Your task to perform on an android device: open app "Adobe Acrobat Reader" Image 0: 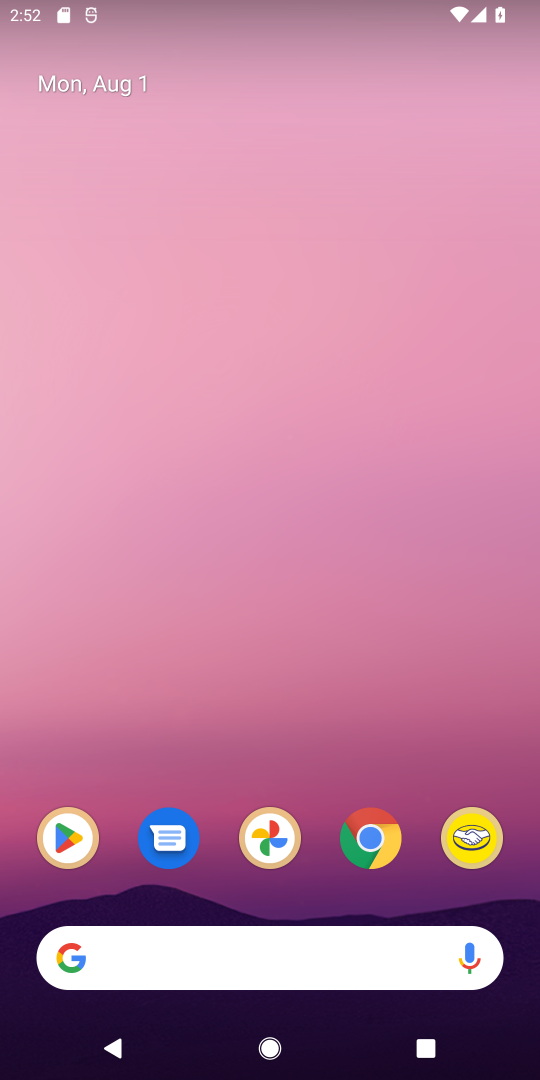
Step 0: click (70, 829)
Your task to perform on an android device: open app "Adobe Acrobat Reader" Image 1: 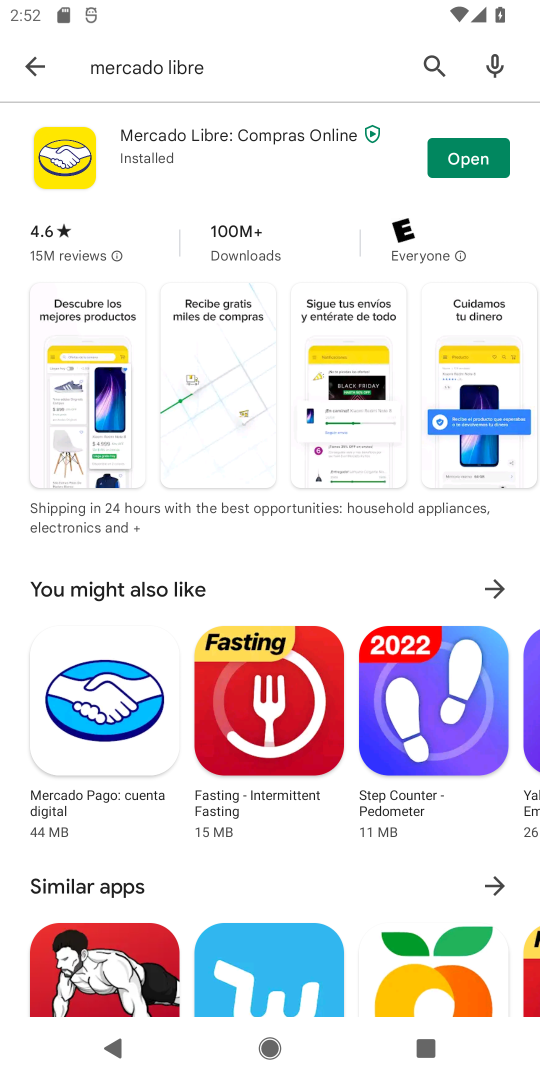
Step 1: click (437, 84)
Your task to perform on an android device: open app "Adobe Acrobat Reader" Image 2: 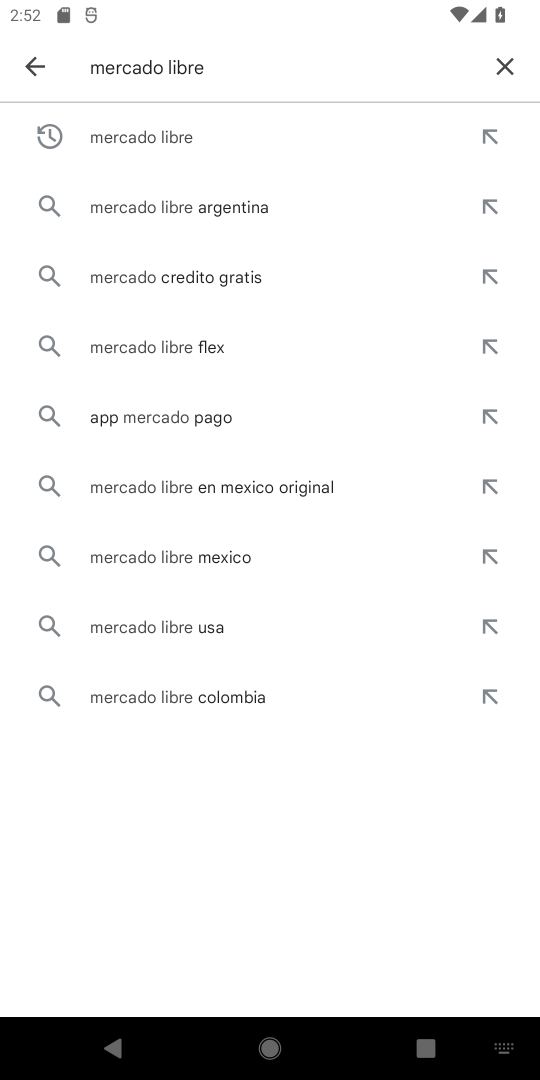
Step 2: click (509, 58)
Your task to perform on an android device: open app "Adobe Acrobat Reader" Image 3: 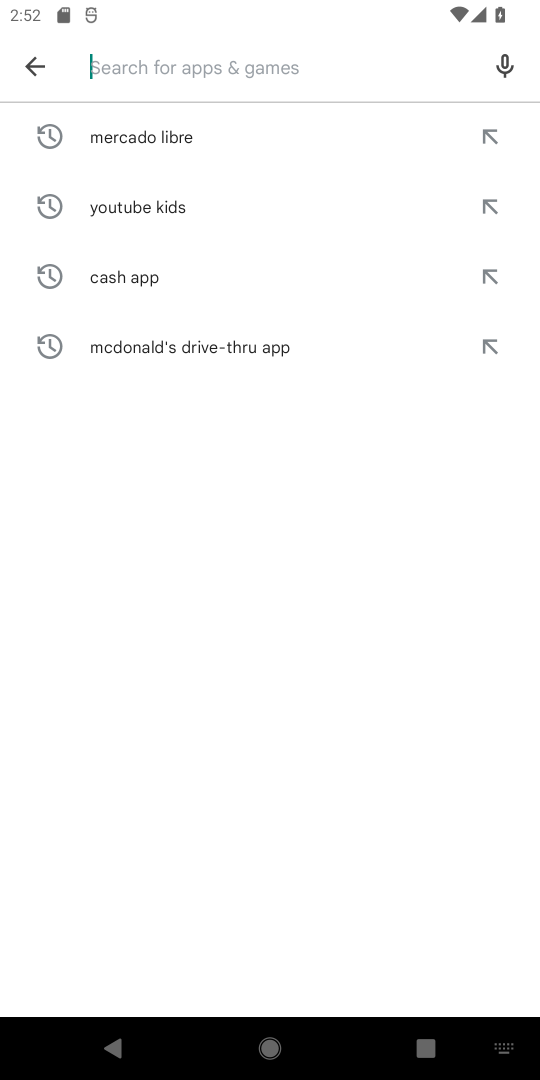
Step 3: type "Adobe Acrobat Reader"
Your task to perform on an android device: open app "Adobe Acrobat Reader" Image 4: 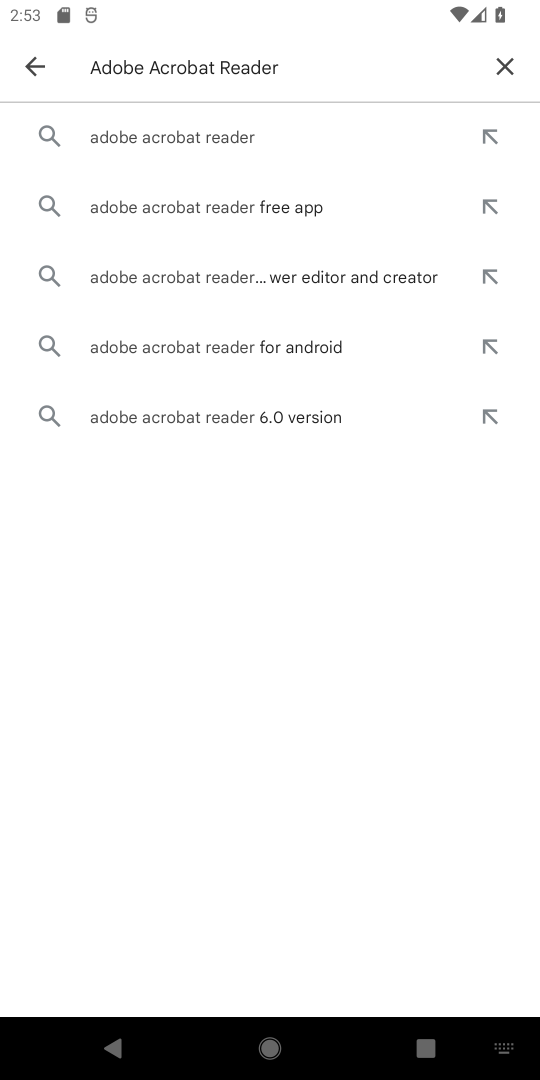
Step 4: click (271, 134)
Your task to perform on an android device: open app "Adobe Acrobat Reader" Image 5: 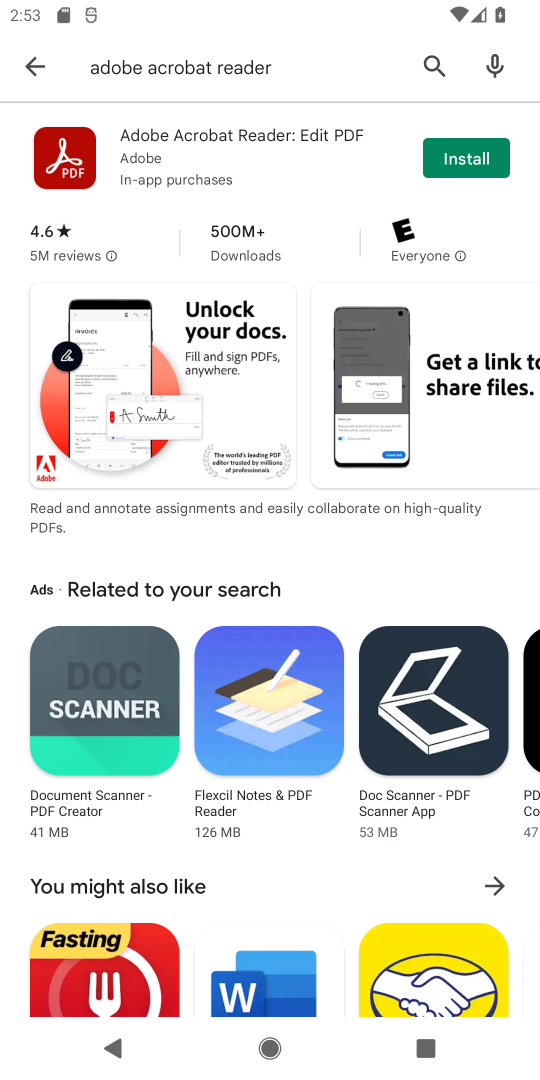
Step 5: task complete